Your task to perform on an android device: open chrome privacy settings Image 0: 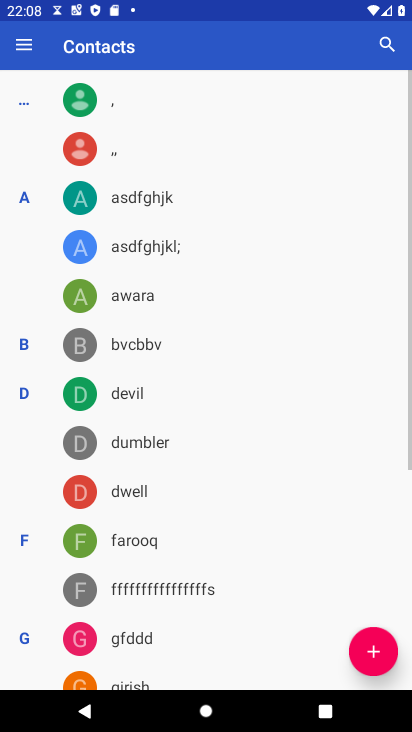
Step 0: press home button
Your task to perform on an android device: open chrome privacy settings Image 1: 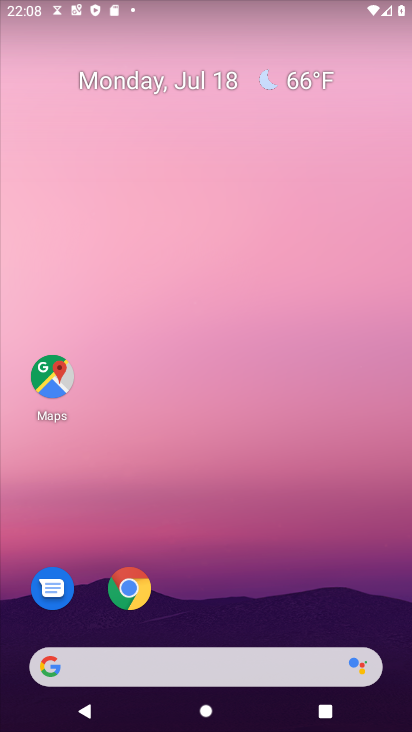
Step 1: click (132, 590)
Your task to perform on an android device: open chrome privacy settings Image 2: 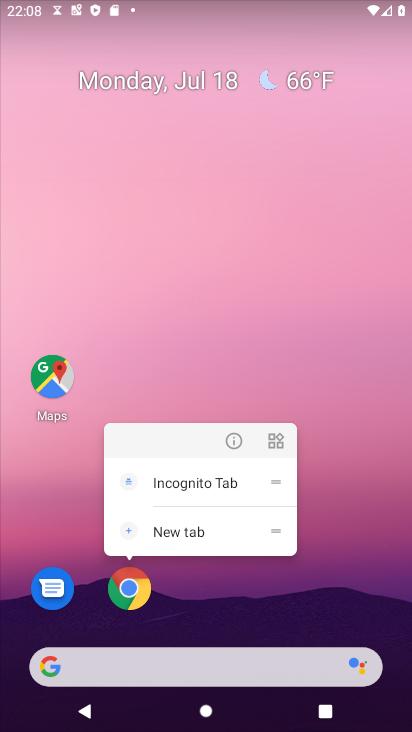
Step 2: click (133, 597)
Your task to perform on an android device: open chrome privacy settings Image 3: 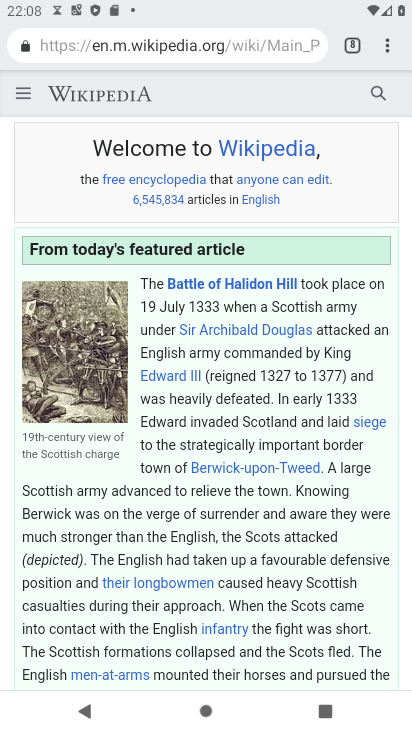
Step 3: drag from (386, 45) to (252, 546)
Your task to perform on an android device: open chrome privacy settings Image 4: 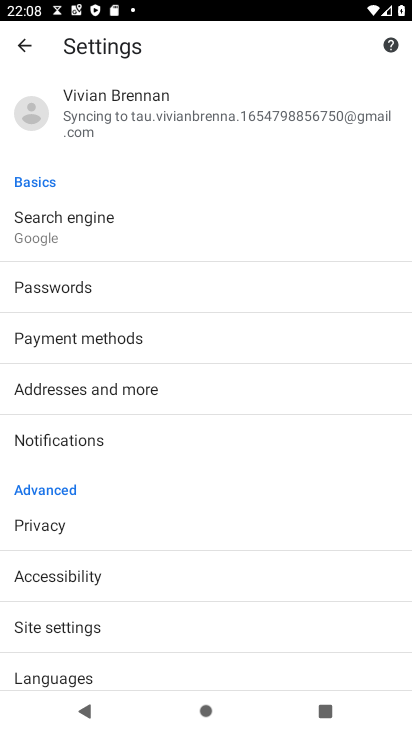
Step 4: click (45, 528)
Your task to perform on an android device: open chrome privacy settings Image 5: 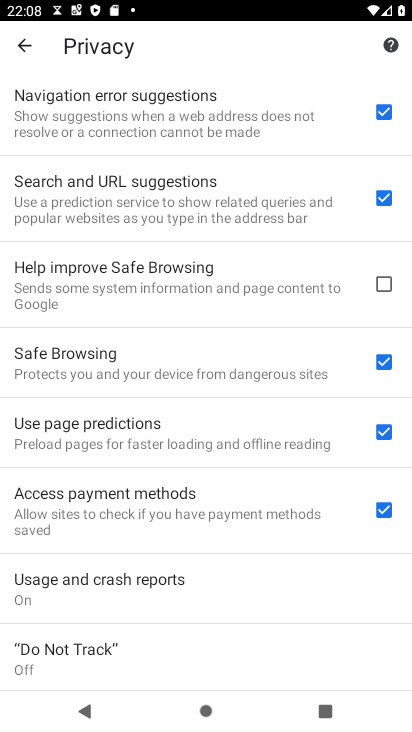
Step 5: task complete